Your task to perform on an android device: open app "Speedtest by Ookla" (install if not already installed) and go to login screen Image 0: 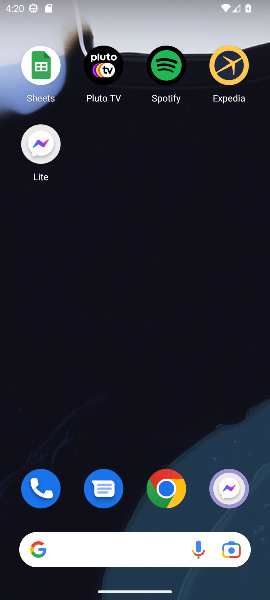
Step 0: drag from (133, 523) to (105, 43)
Your task to perform on an android device: open app "Speedtest by Ookla" (install if not already installed) and go to login screen Image 1: 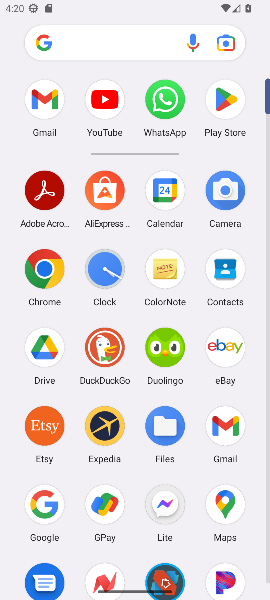
Step 1: click (217, 94)
Your task to perform on an android device: open app "Speedtest by Ookla" (install if not already installed) and go to login screen Image 2: 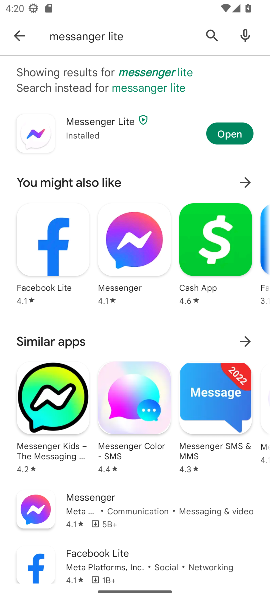
Step 2: click (208, 43)
Your task to perform on an android device: open app "Speedtest by Ookla" (install if not already installed) and go to login screen Image 3: 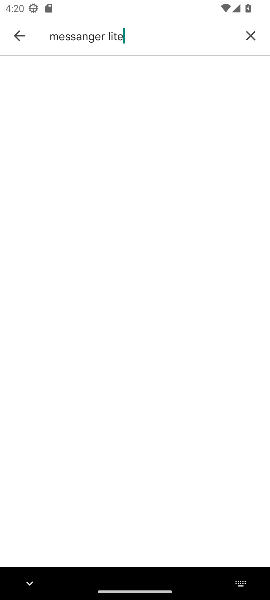
Step 3: click (250, 30)
Your task to perform on an android device: open app "Speedtest by Ookla" (install if not already installed) and go to login screen Image 4: 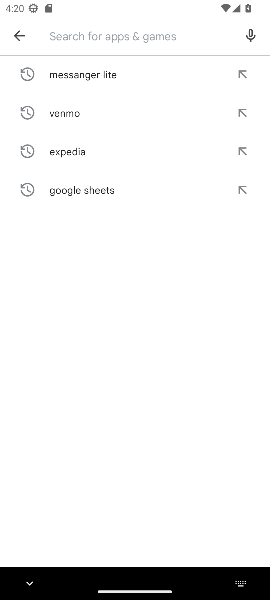
Step 4: type "speed test ookla"
Your task to perform on an android device: open app "Speedtest by Ookla" (install if not already installed) and go to login screen Image 5: 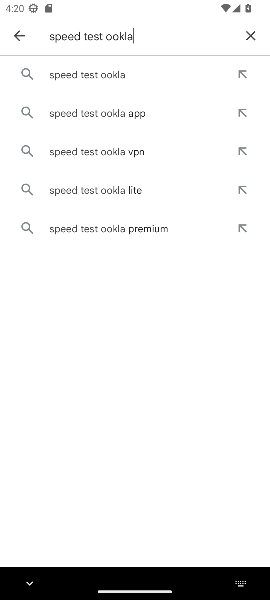
Step 5: click (136, 81)
Your task to perform on an android device: open app "Speedtest by Ookla" (install if not already installed) and go to login screen Image 6: 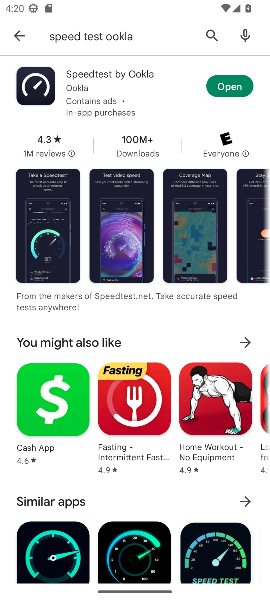
Step 6: click (222, 84)
Your task to perform on an android device: open app "Speedtest by Ookla" (install if not already installed) and go to login screen Image 7: 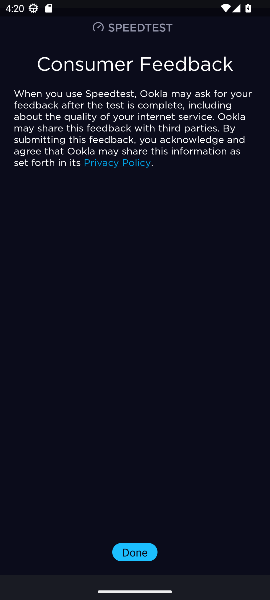
Step 7: task complete